Your task to perform on an android device: set the timer Image 0: 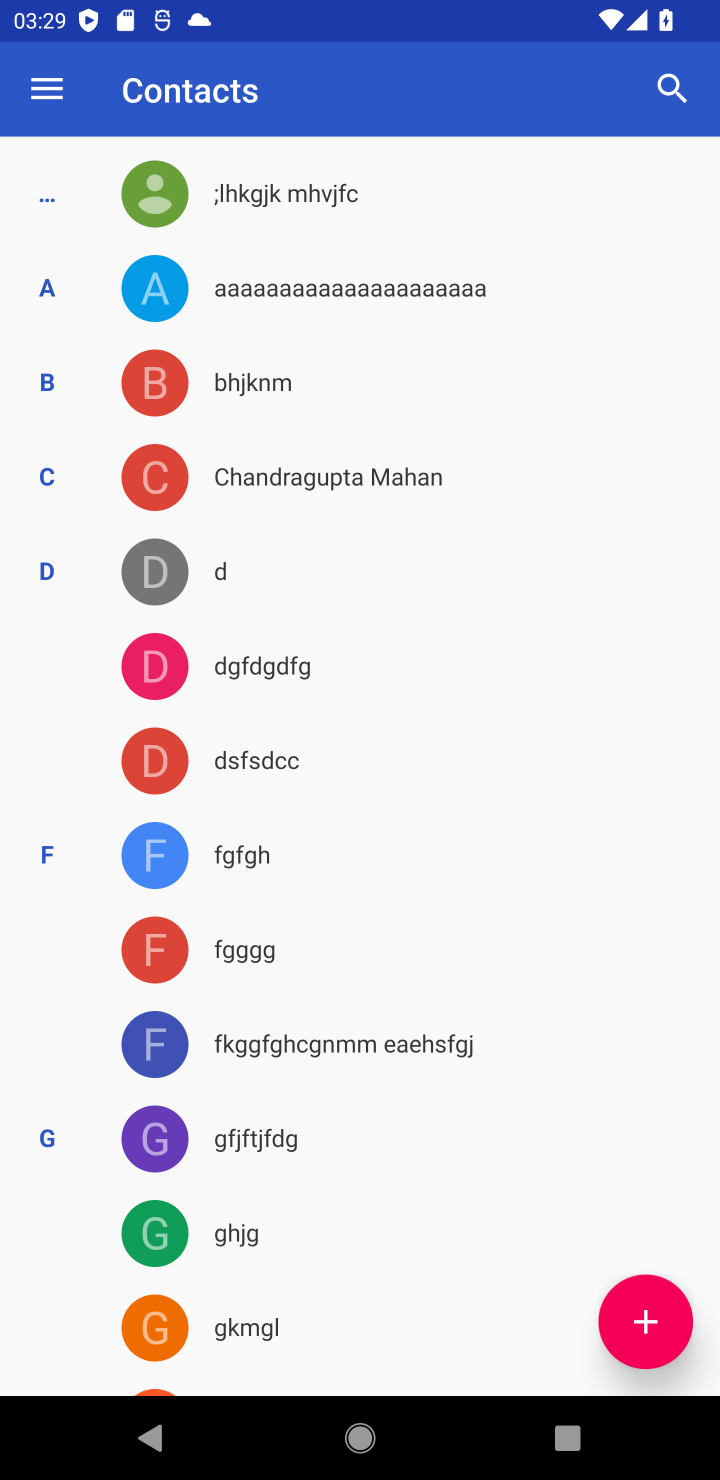
Step 0: press home button
Your task to perform on an android device: set the timer Image 1: 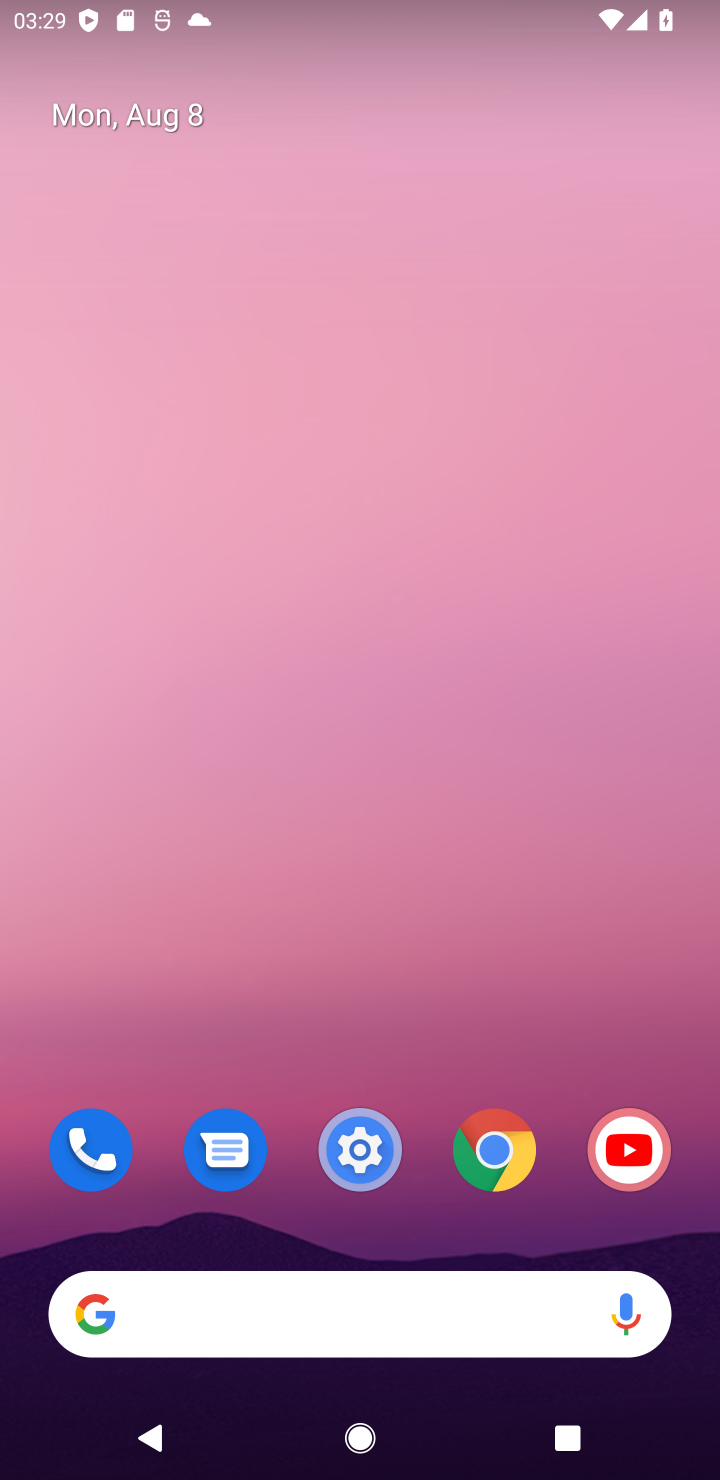
Step 1: task complete